Your task to perform on an android device: toggle wifi Image 0: 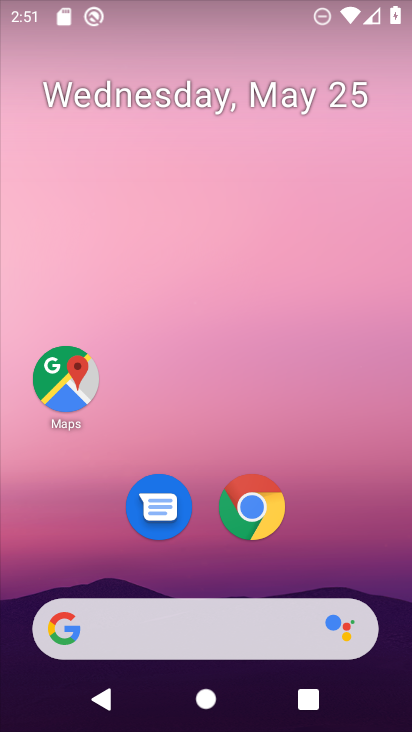
Step 0: drag from (220, 582) to (265, 162)
Your task to perform on an android device: toggle wifi Image 1: 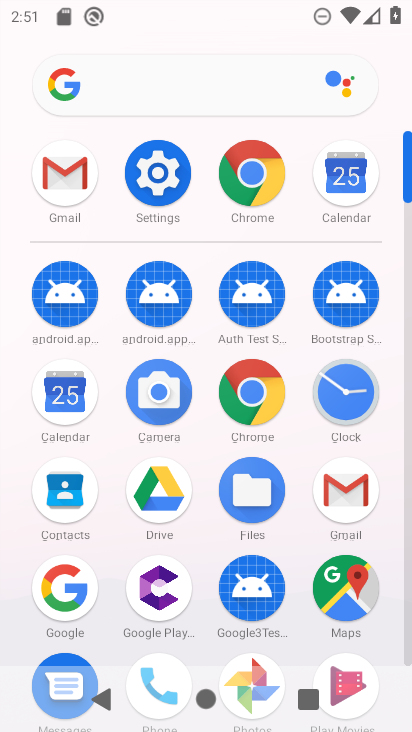
Step 1: click (169, 190)
Your task to perform on an android device: toggle wifi Image 2: 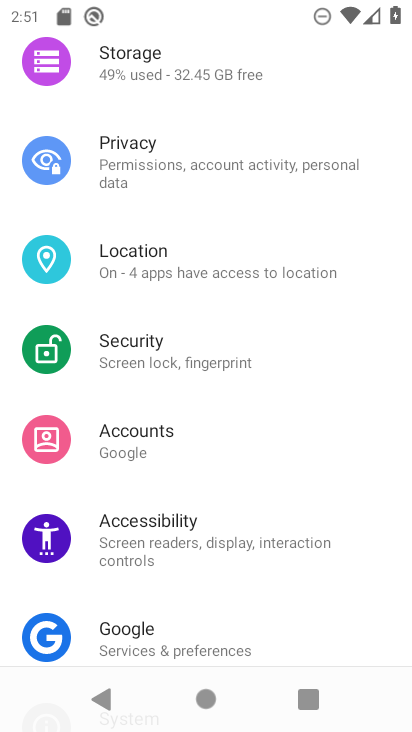
Step 2: drag from (177, 291) to (194, 620)
Your task to perform on an android device: toggle wifi Image 3: 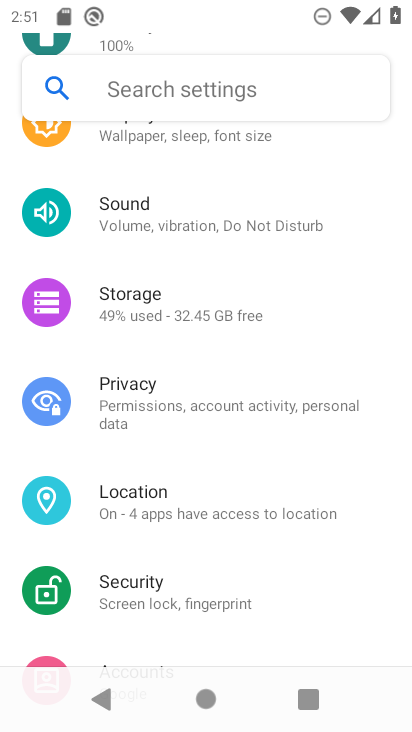
Step 3: drag from (238, 282) to (168, 603)
Your task to perform on an android device: toggle wifi Image 4: 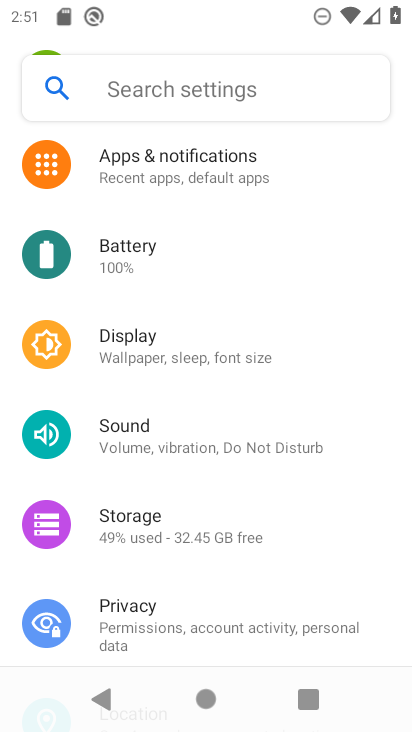
Step 4: drag from (188, 448) to (184, 641)
Your task to perform on an android device: toggle wifi Image 5: 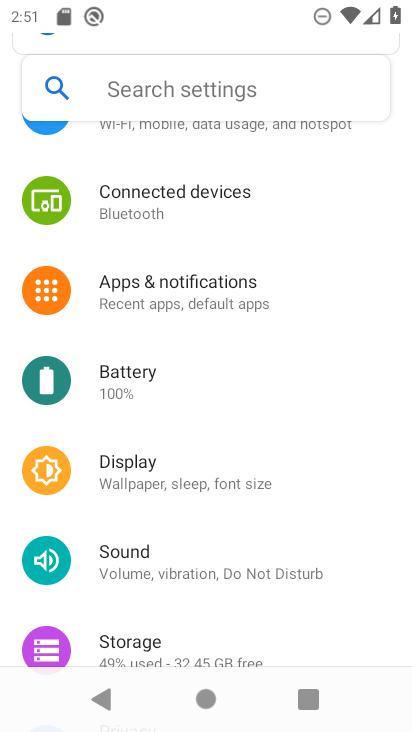
Step 5: drag from (224, 271) to (198, 612)
Your task to perform on an android device: toggle wifi Image 6: 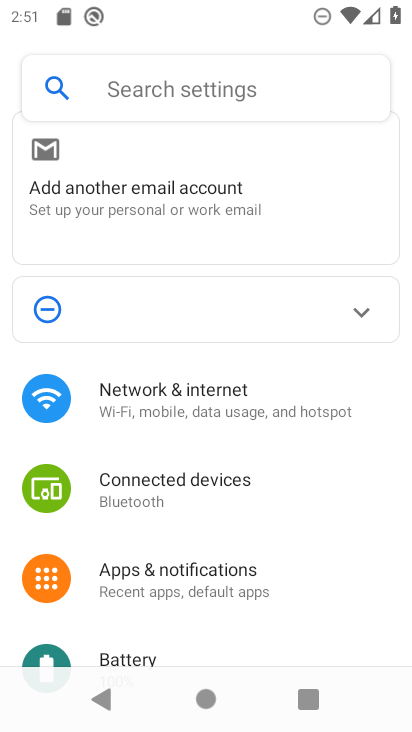
Step 6: click (198, 407)
Your task to perform on an android device: toggle wifi Image 7: 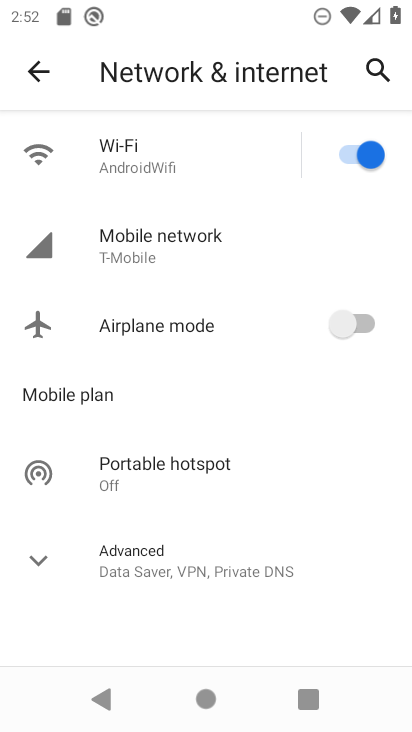
Step 7: click (181, 175)
Your task to perform on an android device: toggle wifi Image 8: 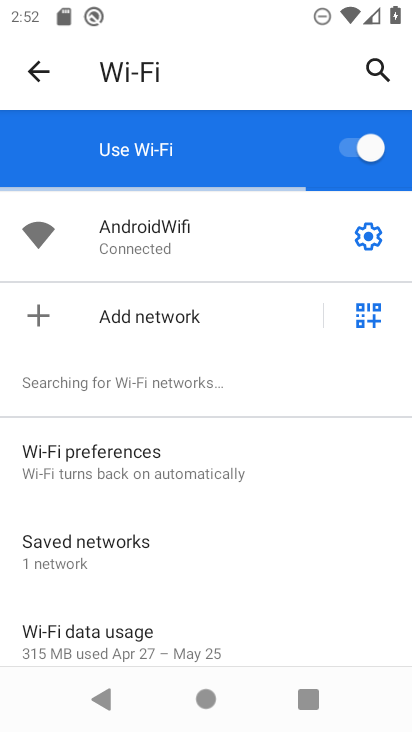
Step 8: task complete